Your task to perform on an android device: make emails show in primary in the gmail app Image 0: 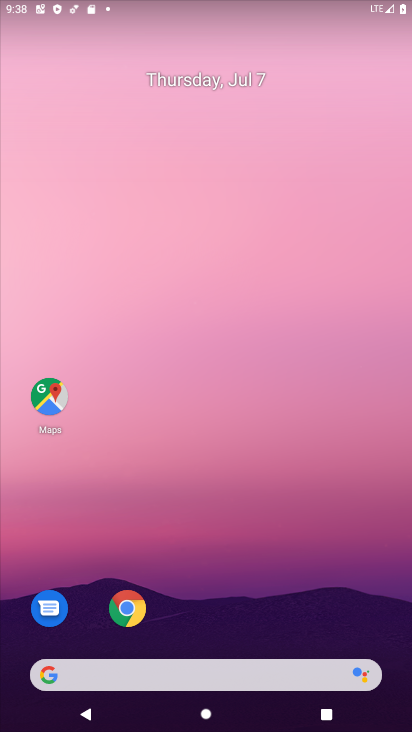
Step 0: drag from (201, 599) to (244, 59)
Your task to perform on an android device: make emails show in primary in the gmail app Image 1: 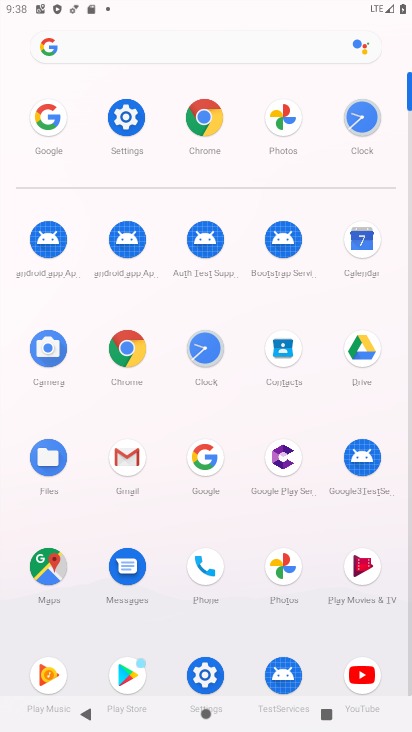
Step 1: click (127, 452)
Your task to perform on an android device: make emails show in primary in the gmail app Image 2: 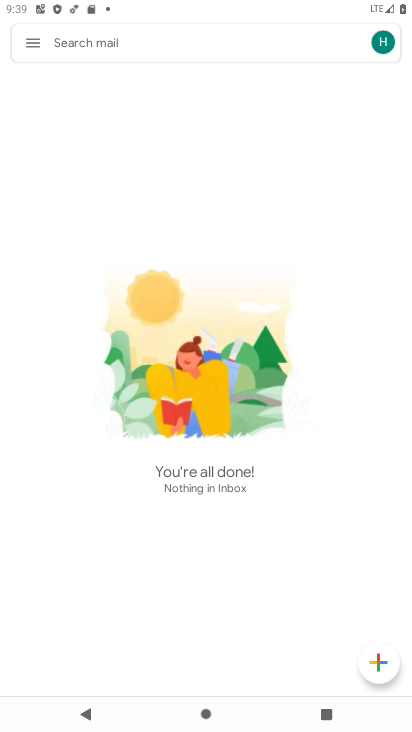
Step 2: click (38, 39)
Your task to perform on an android device: make emails show in primary in the gmail app Image 3: 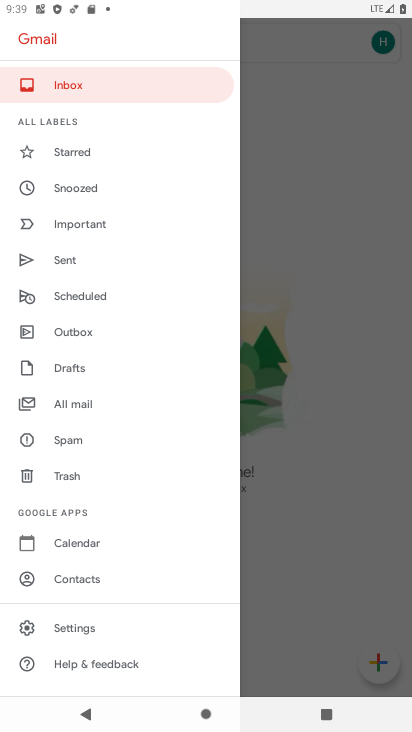
Step 3: click (84, 623)
Your task to perform on an android device: make emails show in primary in the gmail app Image 4: 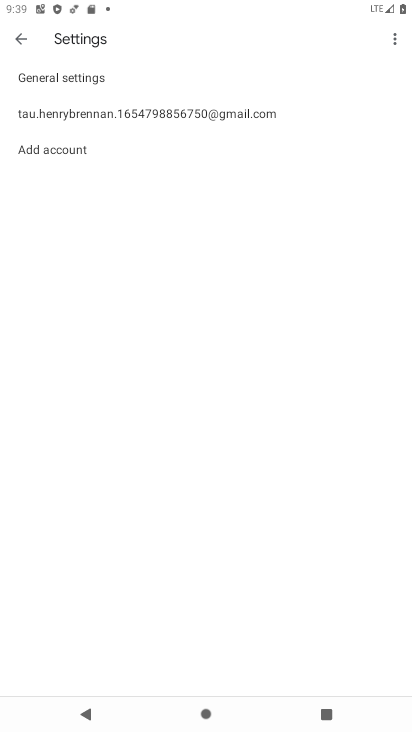
Step 4: click (82, 109)
Your task to perform on an android device: make emails show in primary in the gmail app Image 5: 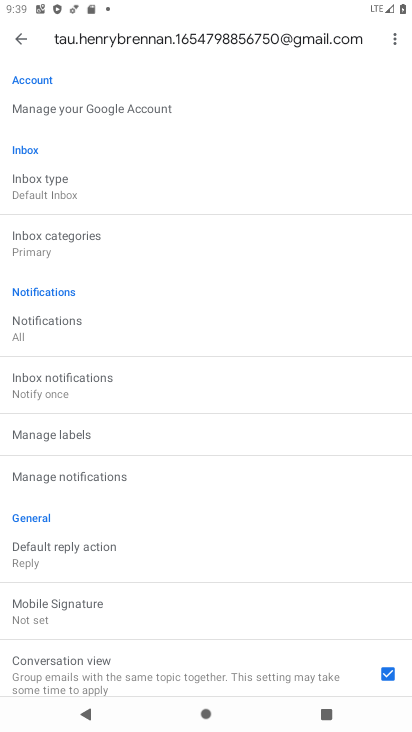
Step 5: task complete